Your task to perform on an android device: Show me recent news Image 0: 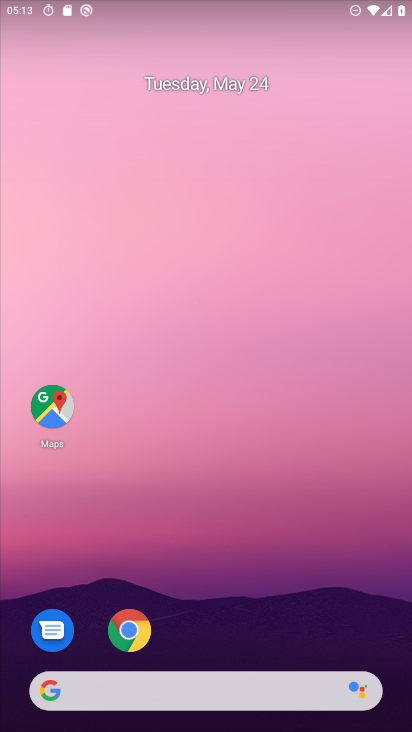
Step 0: drag from (197, 633) to (233, 8)
Your task to perform on an android device: Show me recent news Image 1: 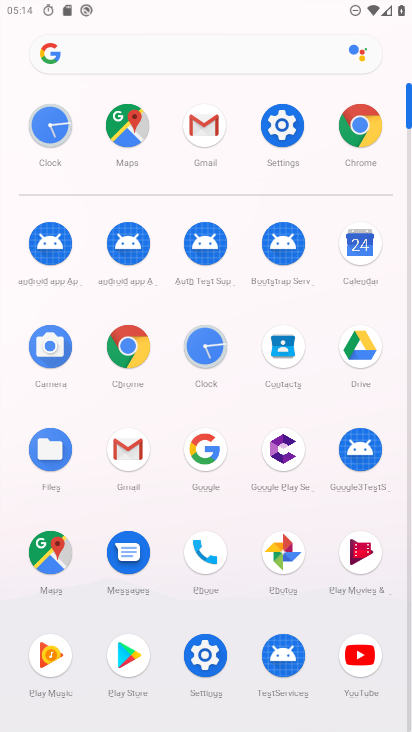
Step 1: click (360, 120)
Your task to perform on an android device: Show me recent news Image 2: 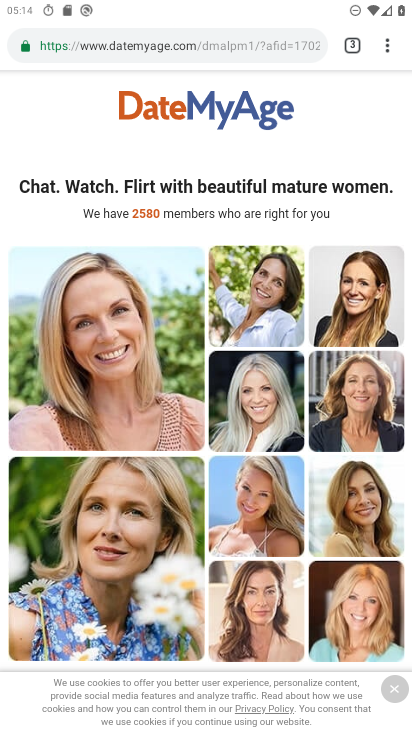
Step 2: click (350, 38)
Your task to perform on an android device: Show me recent news Image 3: 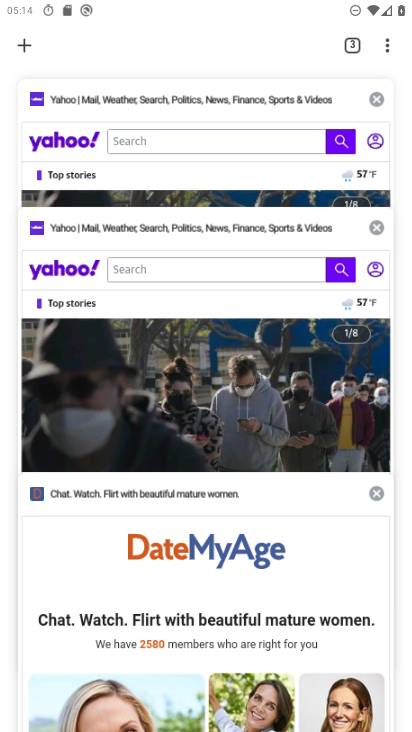
Step 3: click (350, 38)
Your task to perform on an android device: Show me recent news Image 4: 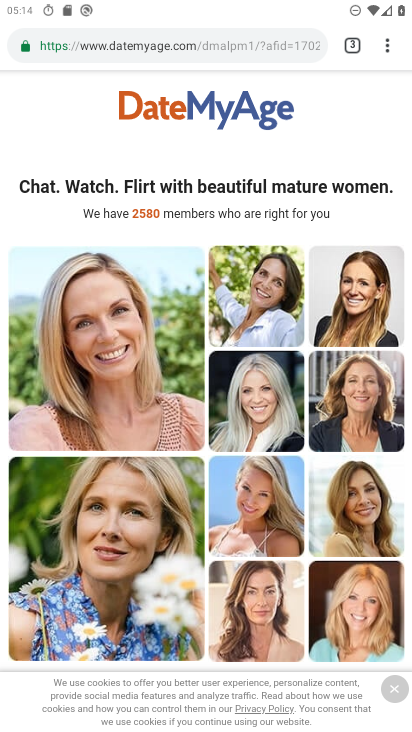
Step 4: click (346, 45)
Your task to perform on an android device: Show me recent news Image 5: 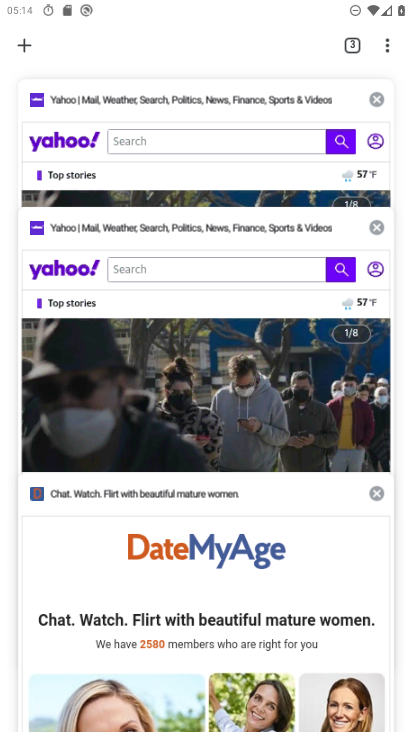
Step 5: click (21, 52)
Your task to perform on an android device: Show me recent news Image 6: 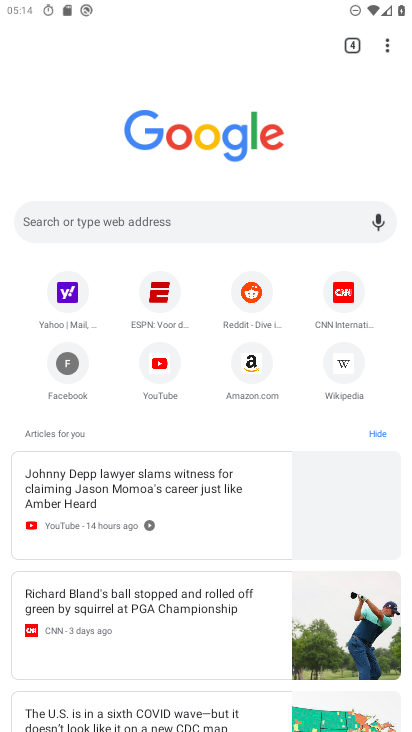
Step 6: click (218, 102)
Your task to perform on an android device: Show me recent news Image 7: 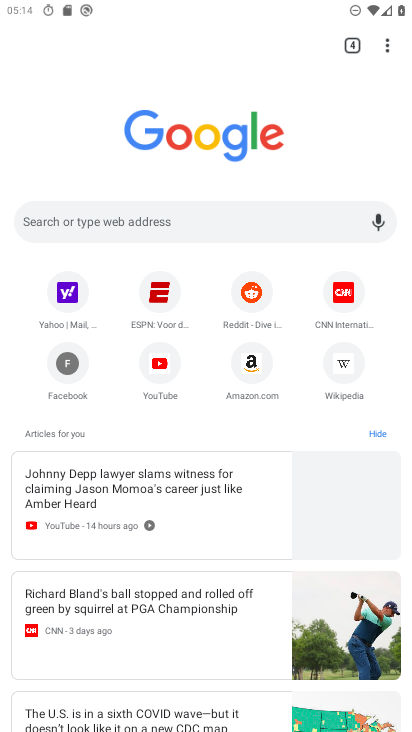
Step 7: task complete